Your task to perform on an android device: Open Google Chrome and open the bookmarks view Image 0: 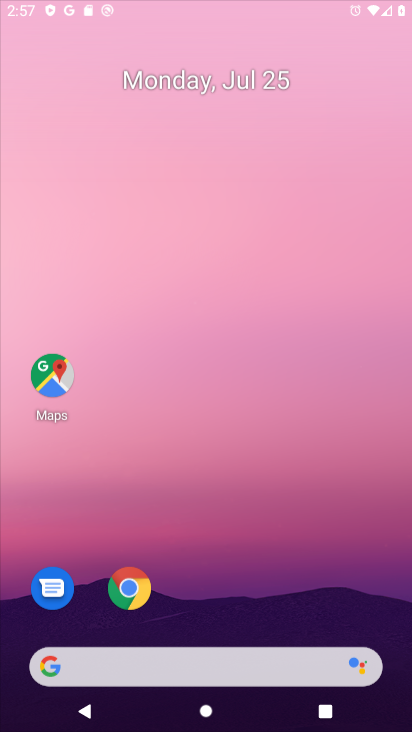
Step 0: press home button
Your task to perform on an android device: Open Google Chrome and open the bookmarks view Image 1: 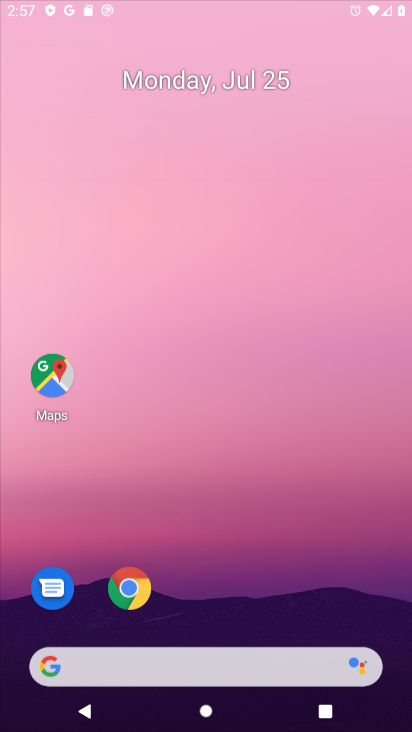
Step 1: drag from (203, 36) to (245, 21)
Your task to perform on an android device: Open Google Chrome and open the bookmarks view Image 2: 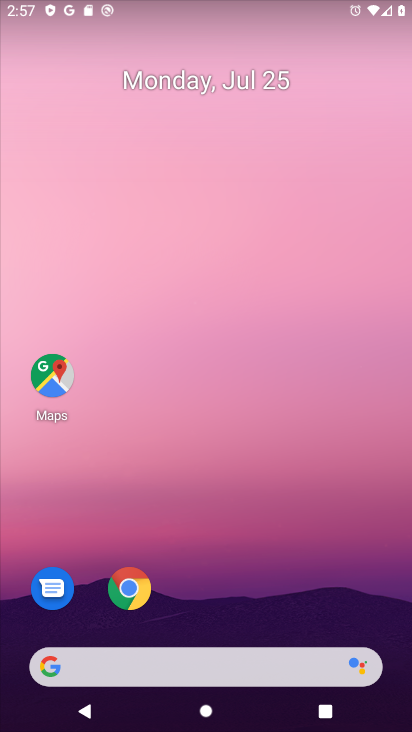
Step 2: drag from (227, 620) to (213, 0)
Your task to perform on an android device: Open Google Chrome and open the bookmarks view Image 3: 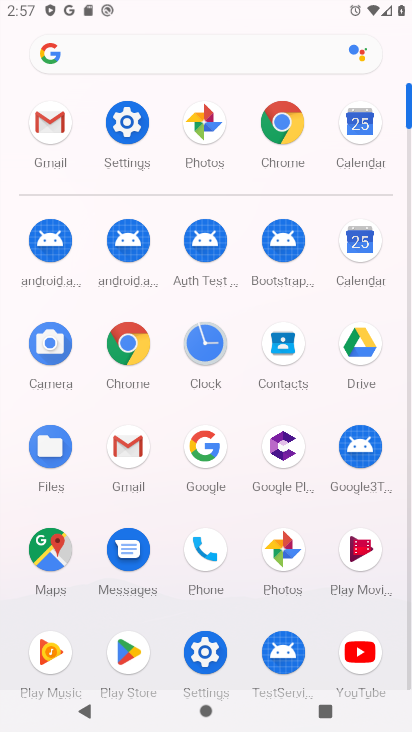
Step 3: click (121, 337)
Your task to perform on an android device: Open Google Chrome and open the bookmarks view Image 4: 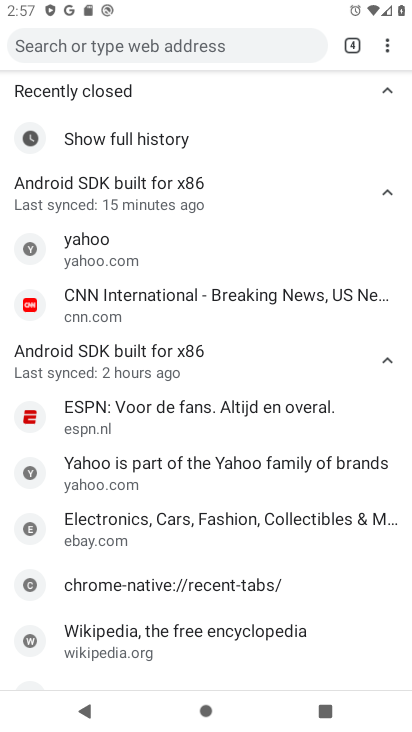
Step 4: click (384, 42)
Your task to perform on an android device: Open Google Chrome and open the bookmarks view Image 5: 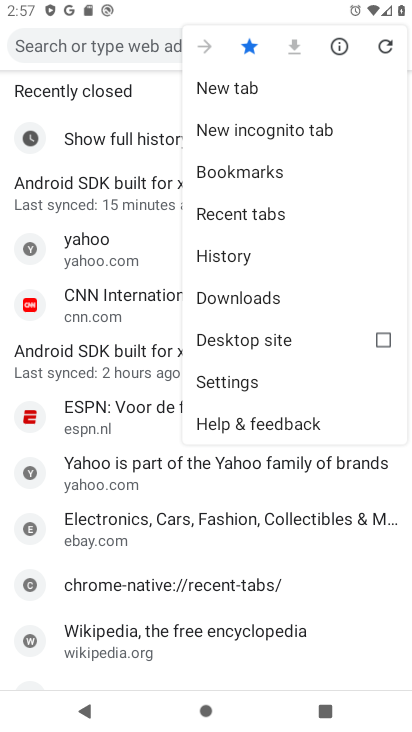
Step 5: click (282, 167)
Your task to perform on an android device: Open Google Chrome and open the bookmarks view Image 6: 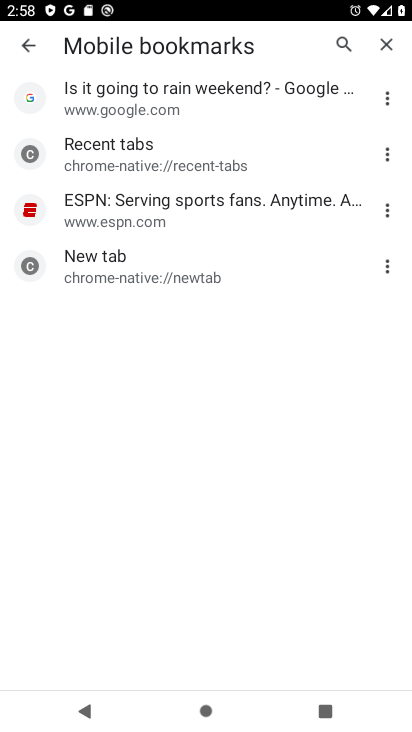
Step 6: task complete